Your task to perform on an android device: open wifi settings Image 0: 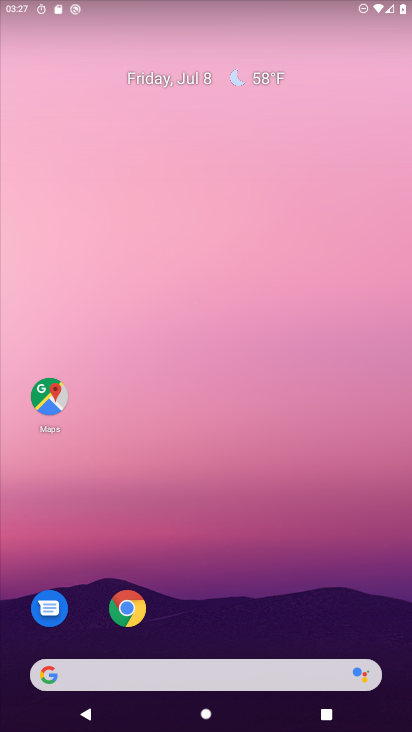
Step 0: drag from (231, 720) to (231, 112)
Your task to perform on an android device: open wifi settings Image 1: 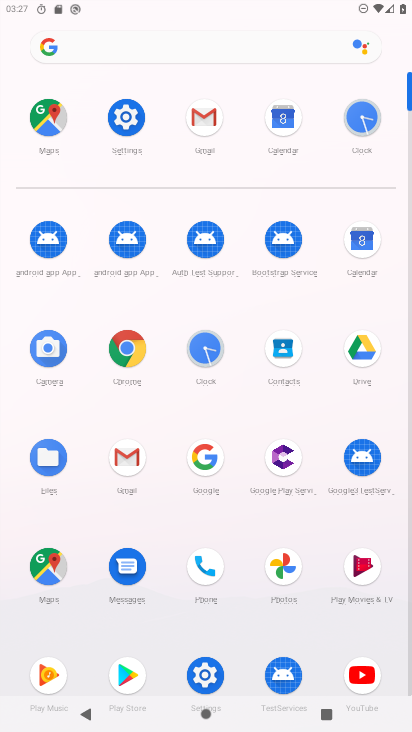
Step 1: click (132, 107)
Your task to perform on an android device: open wifi settings Image 2: 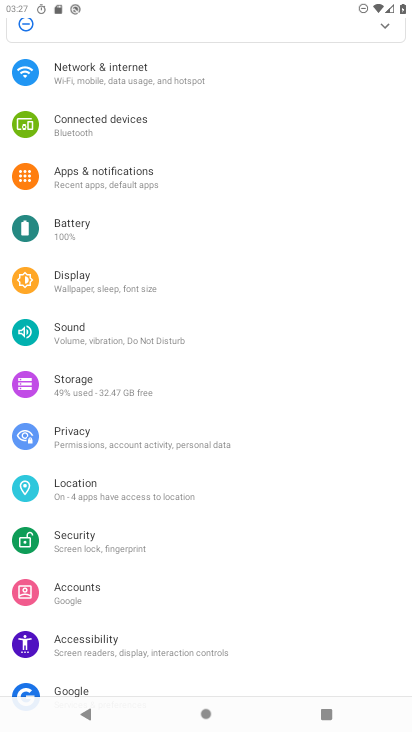
Step 2: drag from (150, 92) to (157, 413)
Your task to perform on an android device: open wifi settings Image 3: 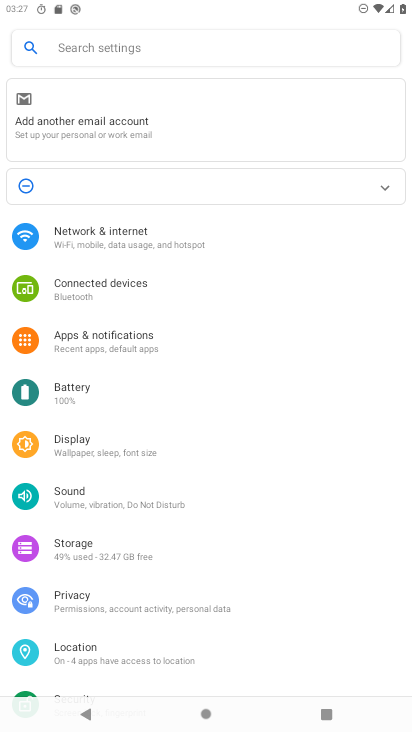
Step 3: click (93, 238)
Your task to perform on an android device: open wifi settings Image 4: 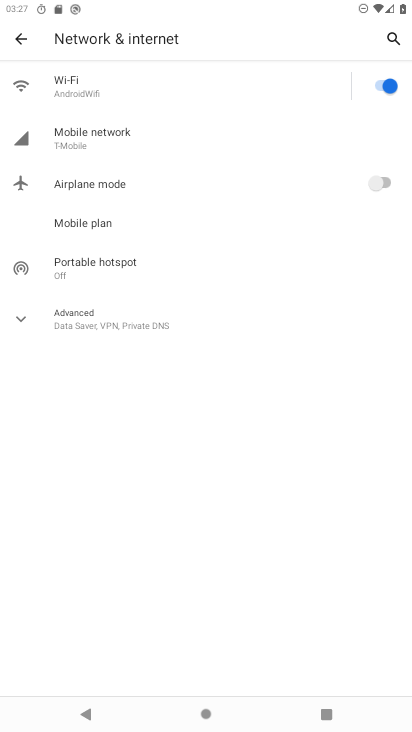
Step 4: click (62, 82)
Your task to perform on an android device: open wifi settings Image 5: 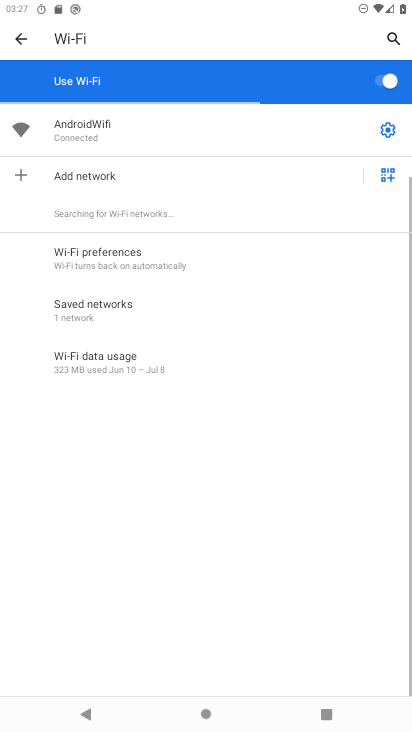
Step 5: task complete